Your task to perform on an android device: open chrome privacy settings Image 0: 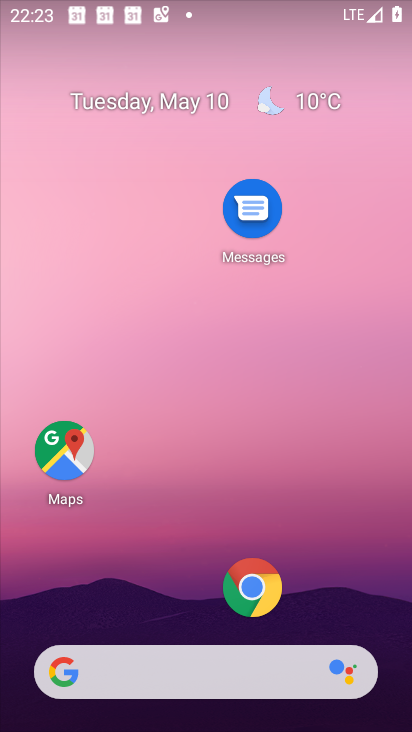
Step 0: click (260, 590)
Your task to perform on an android device: open chrome privacy settings Image 1: 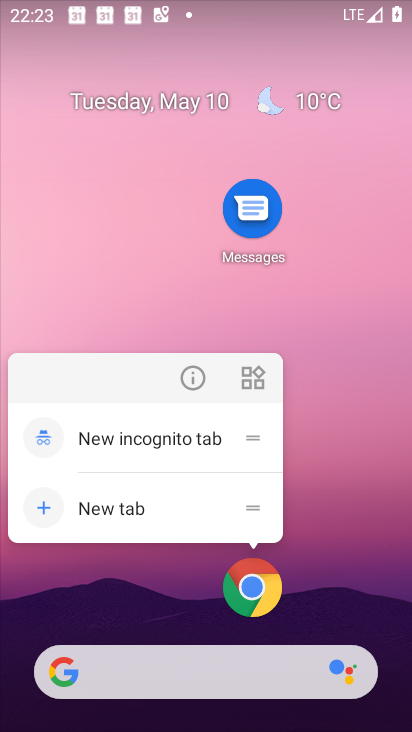
Step 1: click (259, 581)
Your task to perform on an android device: open chrome privacy settings Image 2: 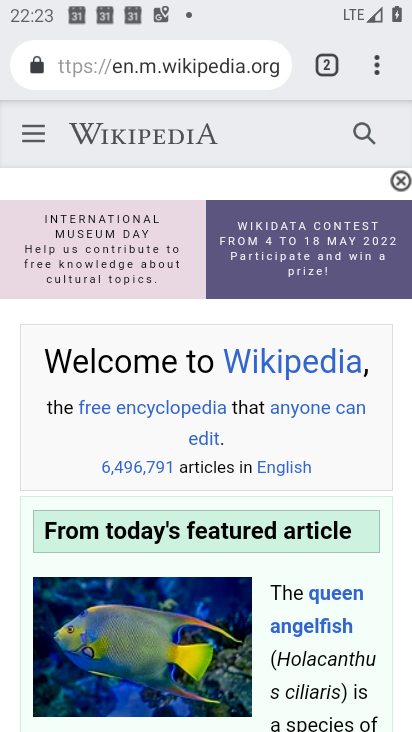
Step 2: click (259, 577)
Your task to perform on an android device: open chrome privacy settings Image 3: 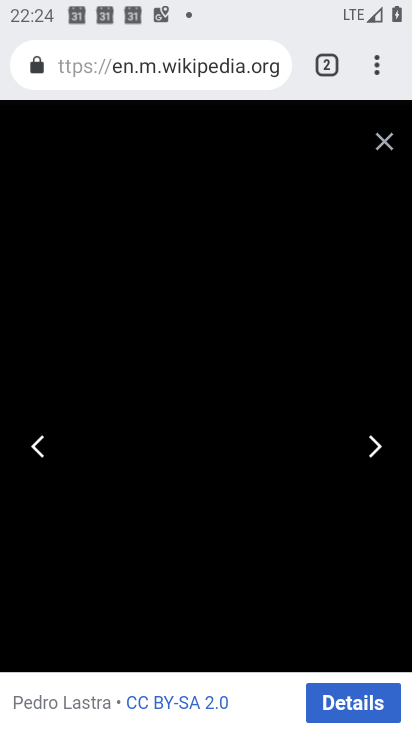
Step 3: click (363, 70)
Your task to perform on an android device: open chrome privacy settings Image 4: 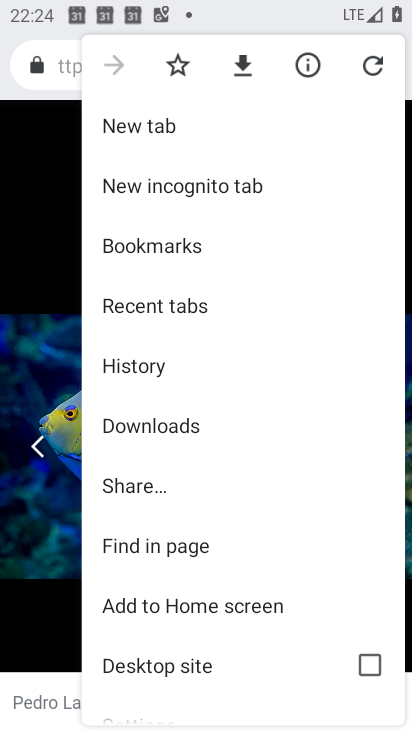
Step 4: click (377, 75)
Your task to perform on an android device: open chrome privacy settings Image 5: 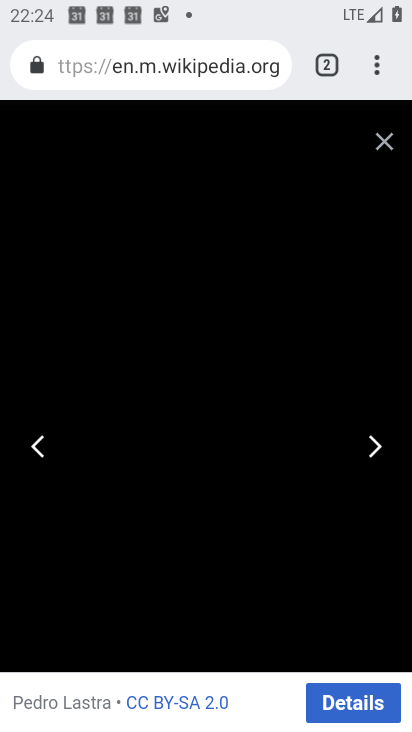
Step 5: click (379, 58)
Your task to perform on an android device: open chrome privacy settings Image 6: 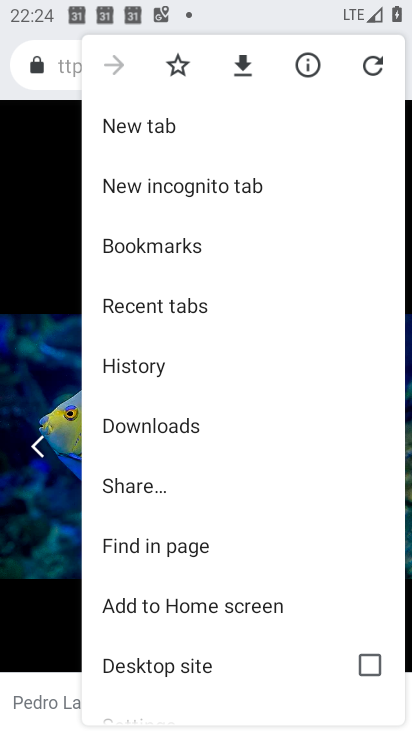
Step 6: drag from (199, 608) to (237, 270)
Your task to perform on an android device: open chrome privacy settings Image 7: 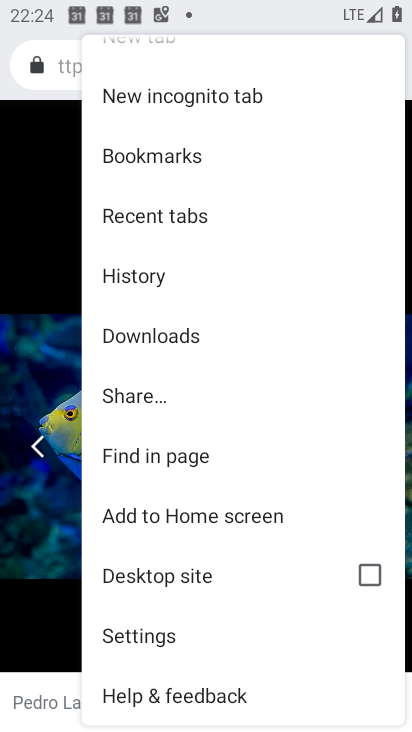
Step 7: click (150, 648)
Your task to perform on an android device: open chrome privacy settings Image 8: 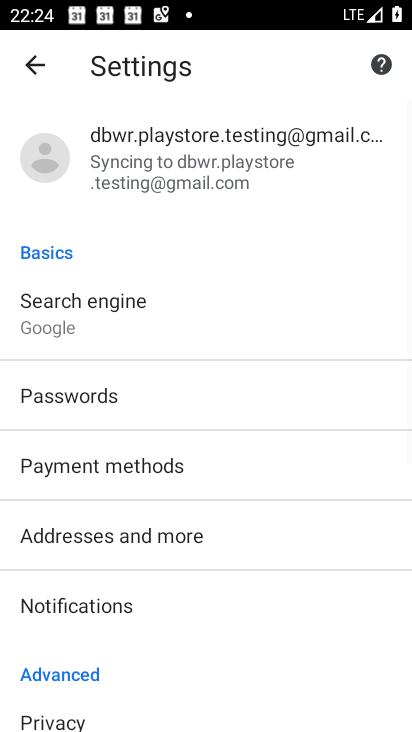
Step 8: drag from (129, 573) to (191, 279)
Your task to perform on an android device: open chrome privacy settings Image 9: 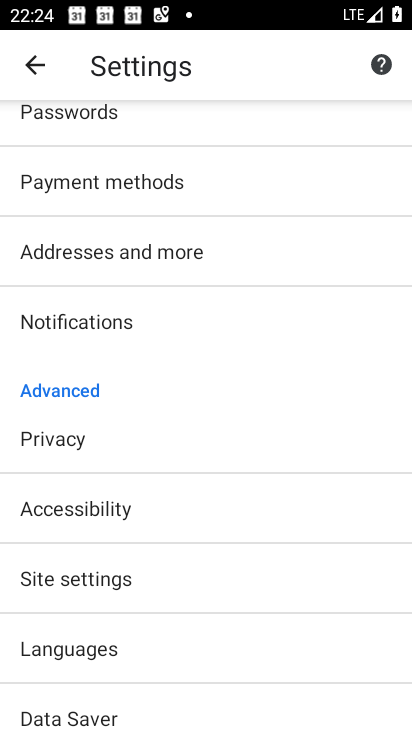
Step 9: click (53, 444)
Your task to perform on an android device: open chrome privacy settings Image 10: 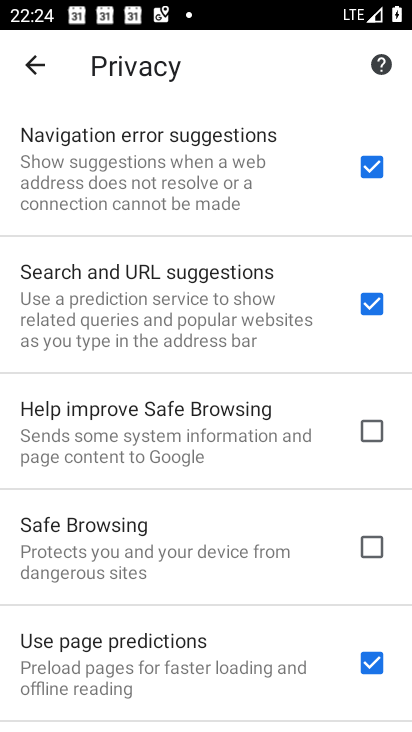
Step 10: task complete